Your task to perform on an android device: Open display settings Image 0: 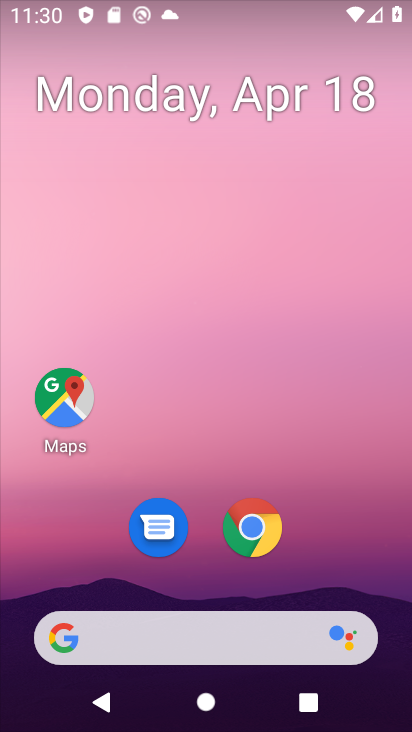
Step 0: drag from (195, 619) to (406, 147)
Your task to perform on an android device: Open display settings Image 1: 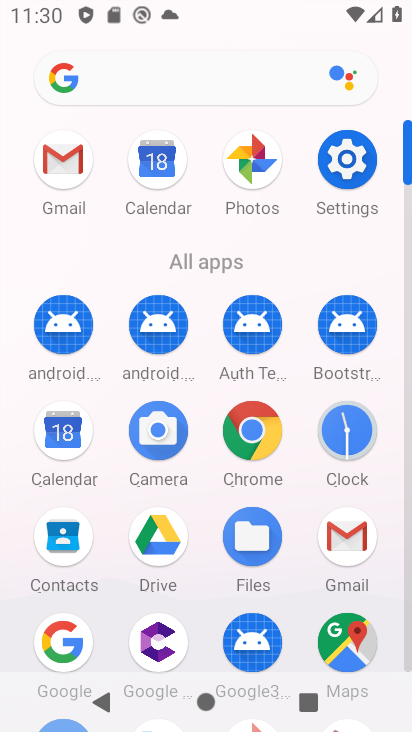
Step 1: click (356, 151)
Your task to perform on an android device: Open display settings Image 2: 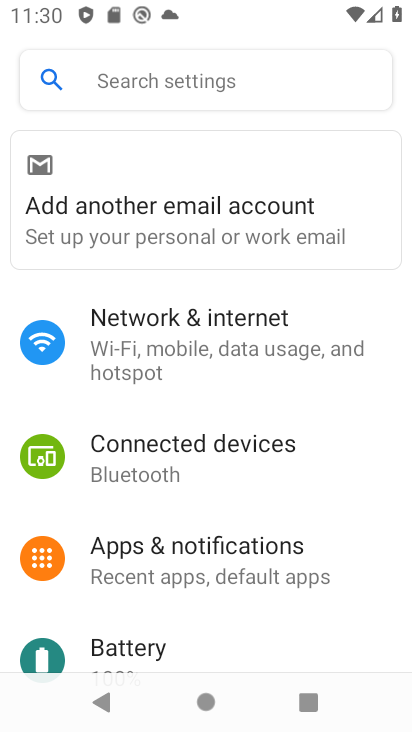
Step 2: drag from (203, 459) to (409, 70)
Your task to perform on an android device: Open display settings Image 3: 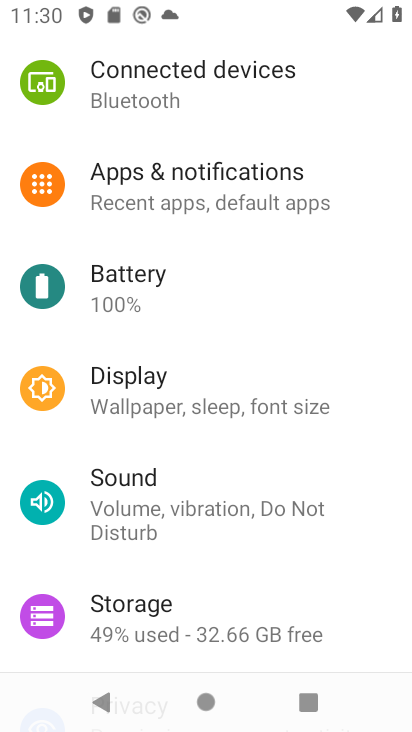
Step 3: drag from (150, 565) to (401, 104)
Your task to perform on an android device: Open display settings Image 4: 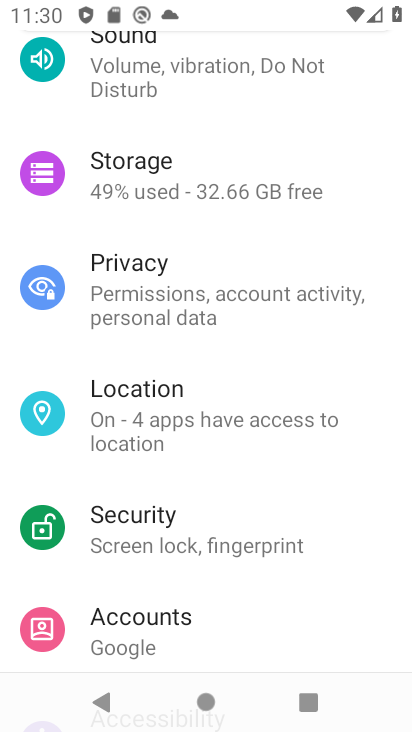
Step 4: drag from (141, 625) to (385, 105)
Your task to perform on an android device: Open display settings Image 5: 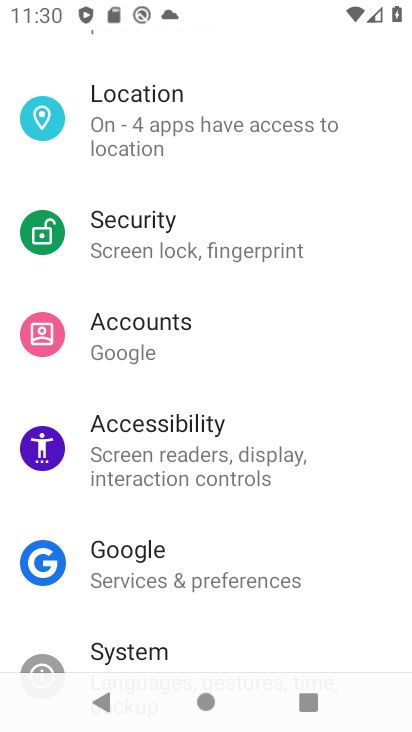
Step 5: drag from (251, 561) to (403, 206)
Your task to perform on an android device: Open display settings Image 6: 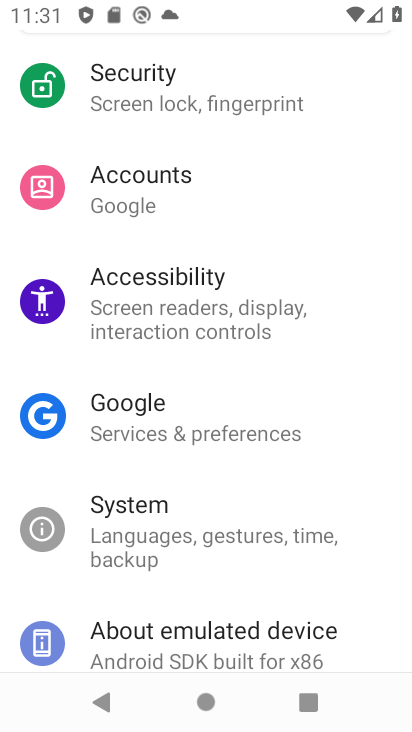
Step 6: drag from (297, 330) to (255, 731)
Your task to perform on an android device: Open display settings Image 7: 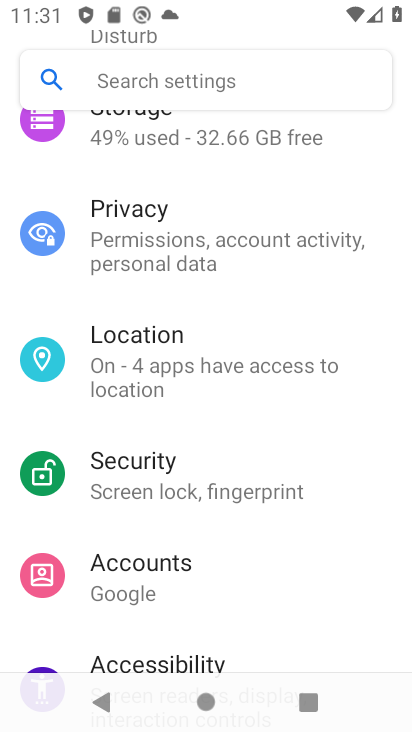
Step 7: drag from (309, 253) to (266, 650)
Your task to perform on an android device: Open display settings Image 8: 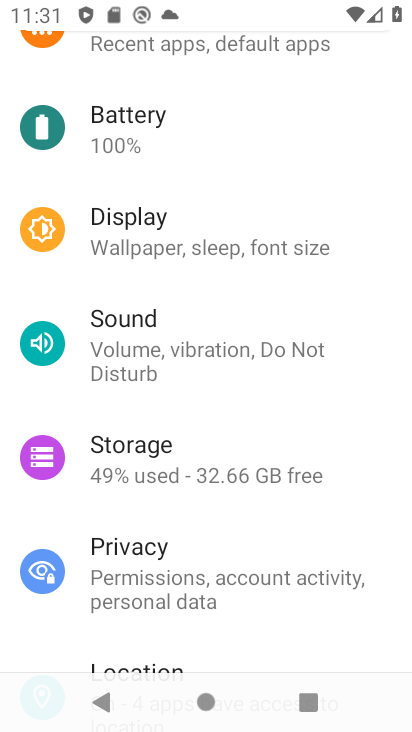
Step 8: click (317, 340)
Your task to perform on an android device: Open display settings Image 9: 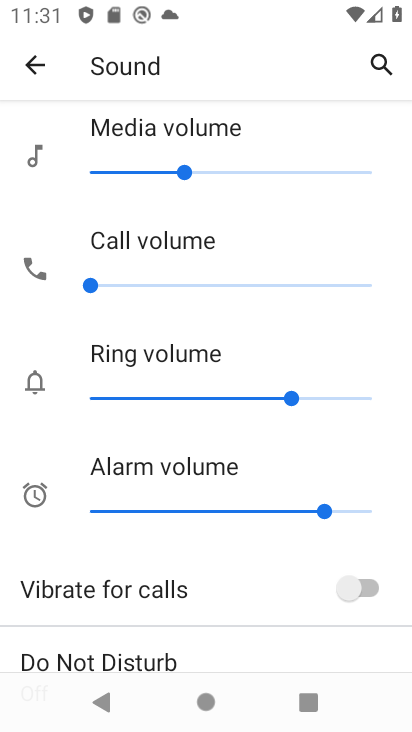
Step 9: task complete